Your task to perform on an android device: choose inbox layout in the gmail app Image 0: 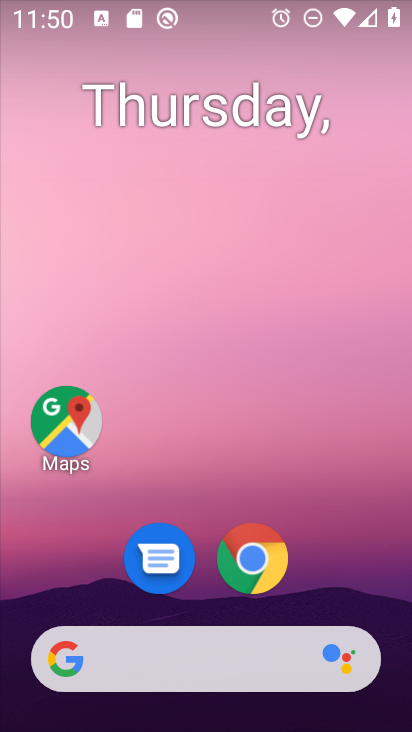
Step 0: drag from (375, 608) to (329, 197)
Your task to perform on an android device: choose inbox layout in the gmail app Image 1: 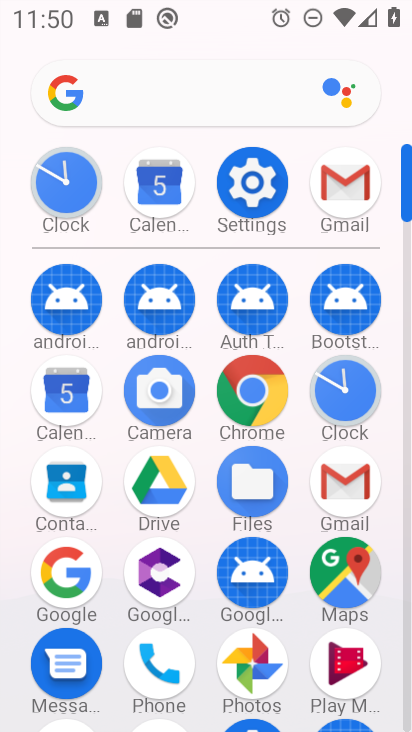
Step 1: click (341, 482)
Your task to perform on an android device: choose inbox layout in the gmail app Image 2: 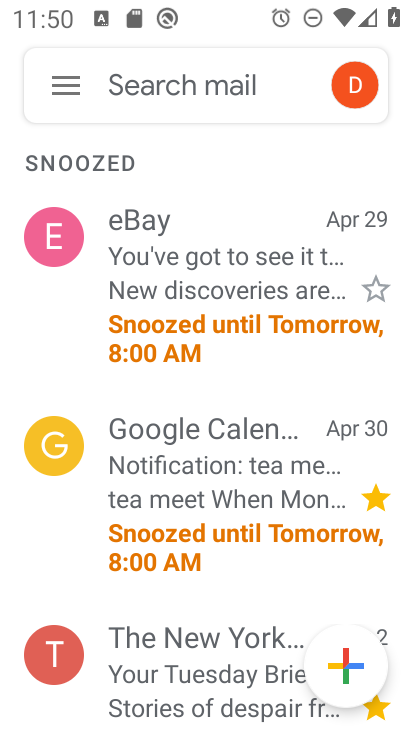
Step 2: click (59, 85)
Your task to perform on an android device: choose inbox layout in the gmail app Image 3: 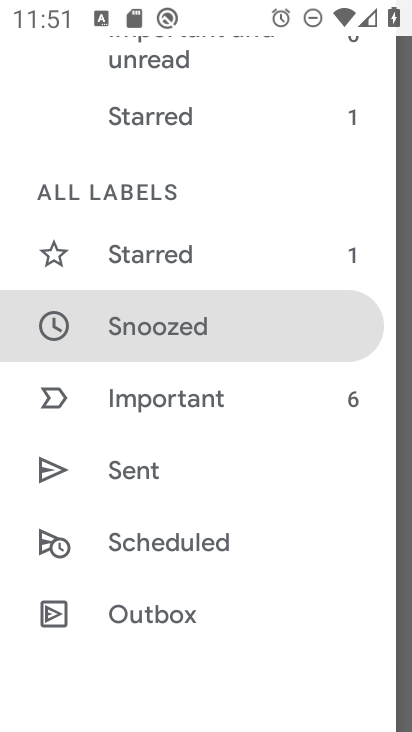
Step 3: drag from (267, 552) to (287, 202)
Your task to perform on an android device: choose inbox layout in the gmail app Image 4: 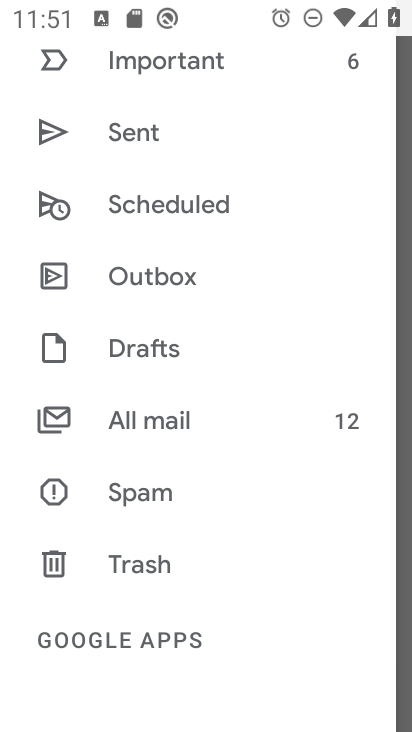
Step 4: drag from (263, 551) to (265, 101)
Your task to perform on an android device: choose inbox layout in the gmail app Image 5: 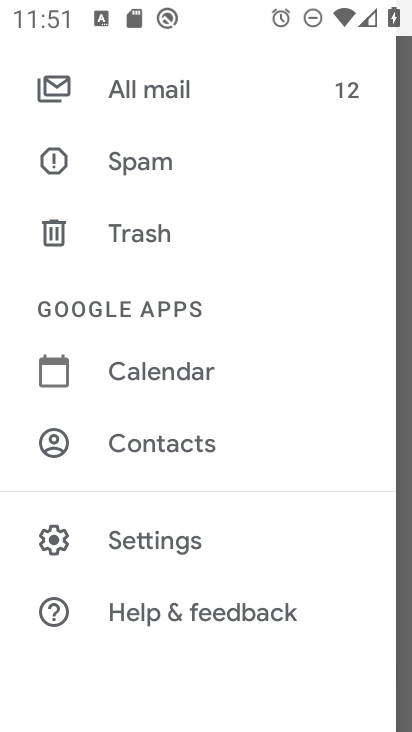
Step 5: click (142, 542)
Your task to perform on an android device: choose inbox layout in the gmail app Image 6: 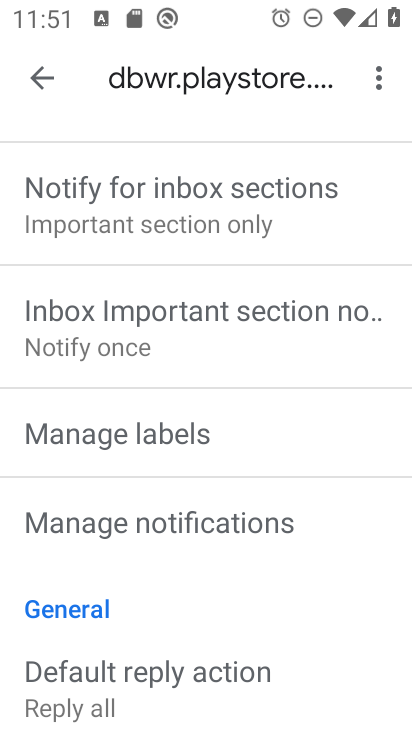
Step 6: drag from (314, 414) to (300, 621)
Your task to perform on an android device: choose inbox layout in the gmail app Image 7: 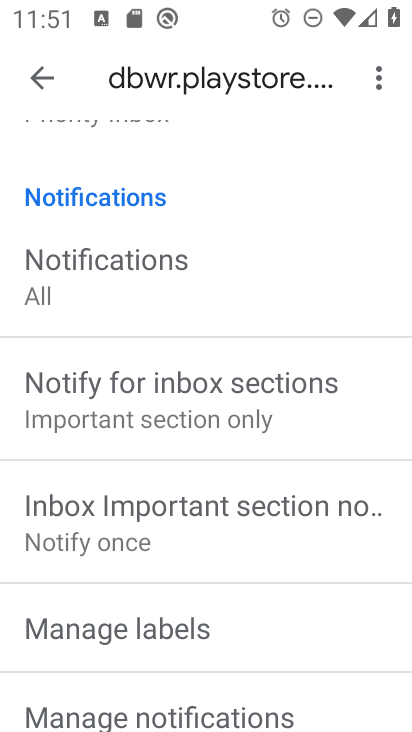
Step 7: drag from (298, 253) to (289, 491)
Your task to perform on an android device: choose inbox layout in the gmail app Image 8: 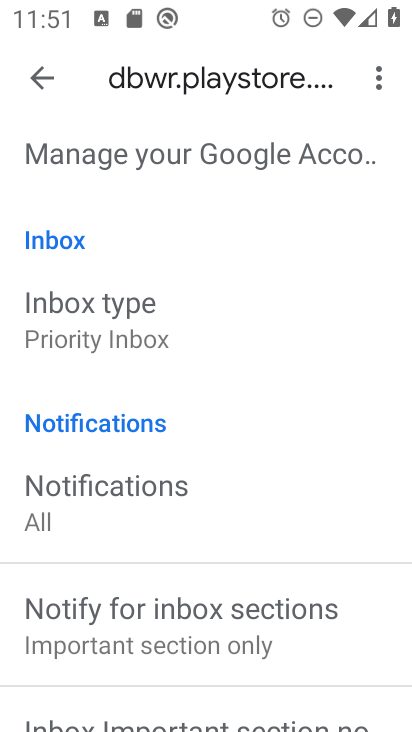
Step 8: drag from (222, 277) to (218, 365)
Your task to perform on an android device: choose inbox layout in the gmail app Image 9: 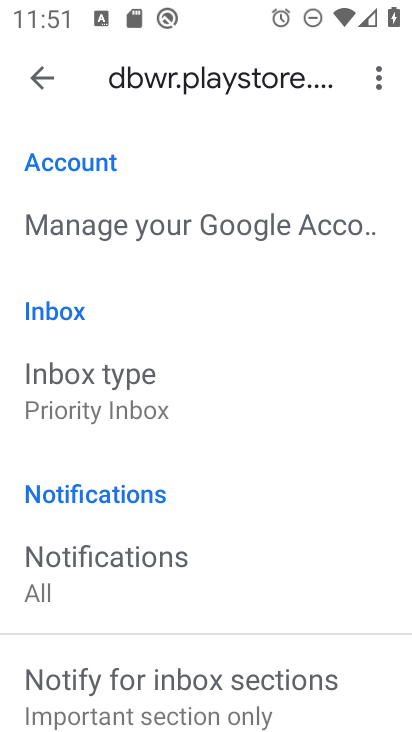
Step 9: click (60, 380)
Your task to perform on an android device: choose inbox layout in the gmail app Image 10: 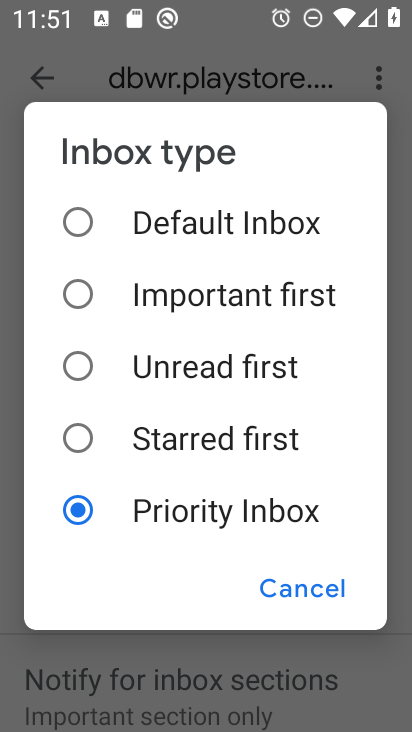
Step 10: click (74, 220)
Your task to perform on an android device: choose inbox layout in the gmail app Image 11: 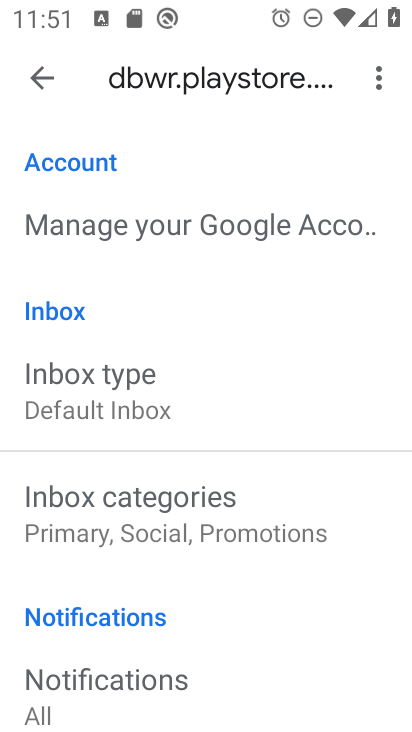
Step 11: task complete